Your task to perform on an android device: Go to location settings Image 0: 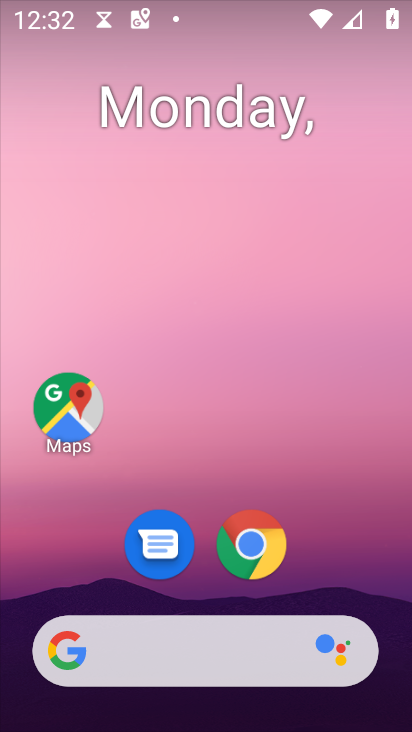
Step 0: drag from (347, 501) to (404, 180)
Your task to perform on an android device: Go to location settings Image 1: 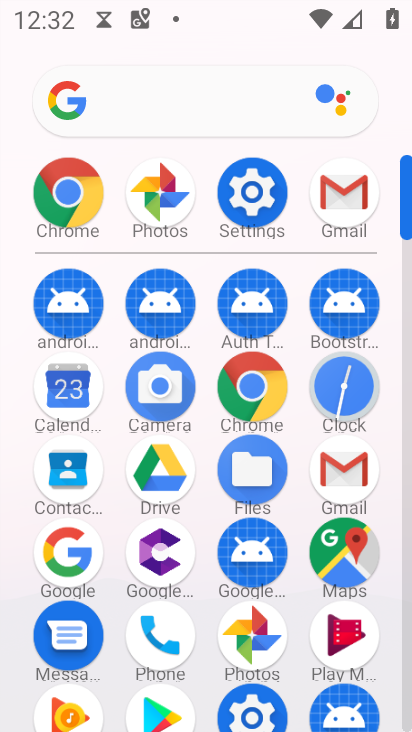
Step 1: click (256, 199)
Your task to perform on an android device: Go to location settings Image 2: 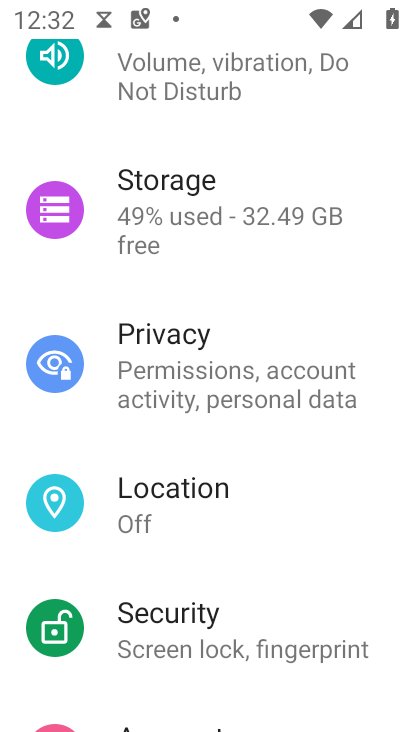
Step 2: click (217, 499)
Your task to perform on an android device: Go to location settings Image 3: 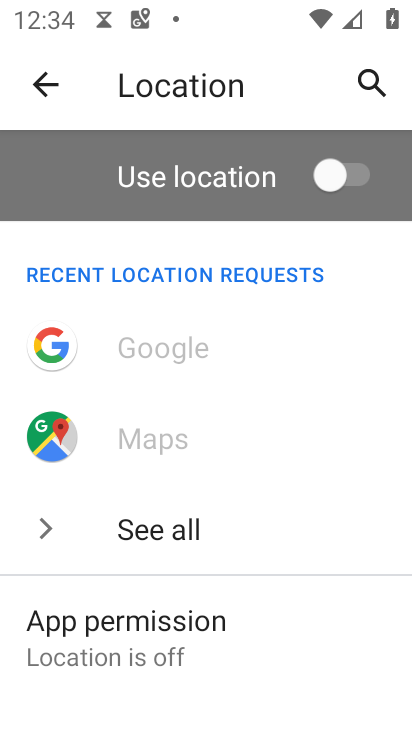
Step 3: task complete